Your task to perform on an android device: What's on my calendar today? Image 0: 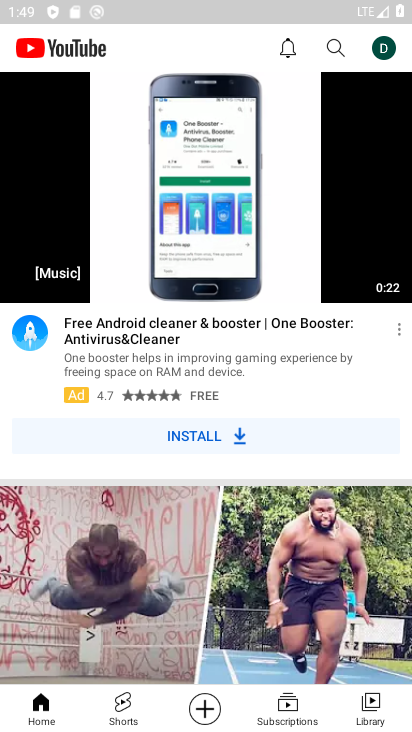
Step 0: drag from (167, 614) to (308, 168)
Your task to perform on an android device: What's on my calendar today? Image 1: 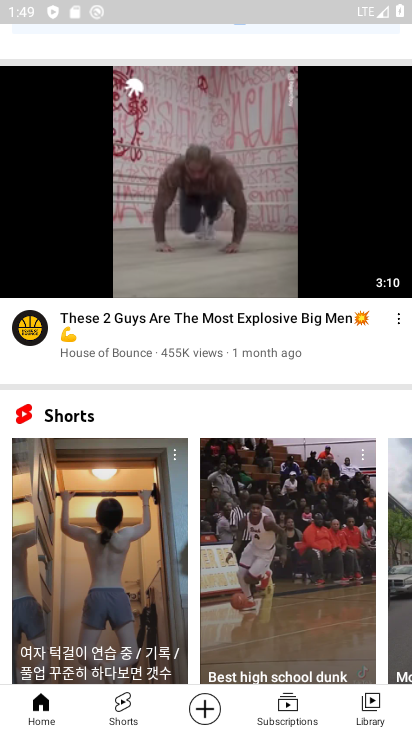
Step 1: drag from (128, 596) to (245, 194)
Your task to perform on an android device: What's on my calendar today? Image 2: 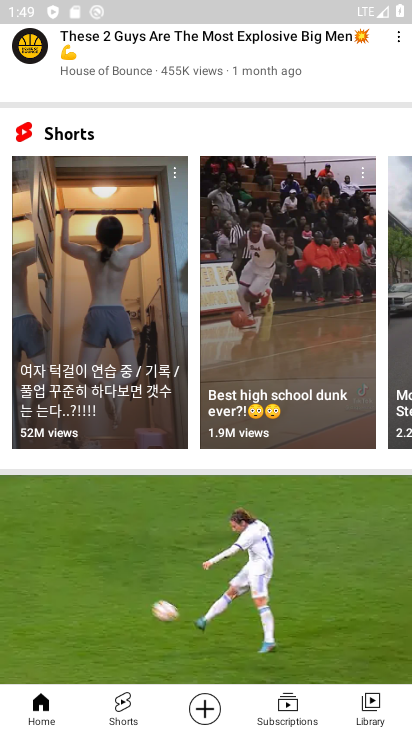
Step 2: press home button
Your task to perform on an android device: What's on my calendar today? Image 3: 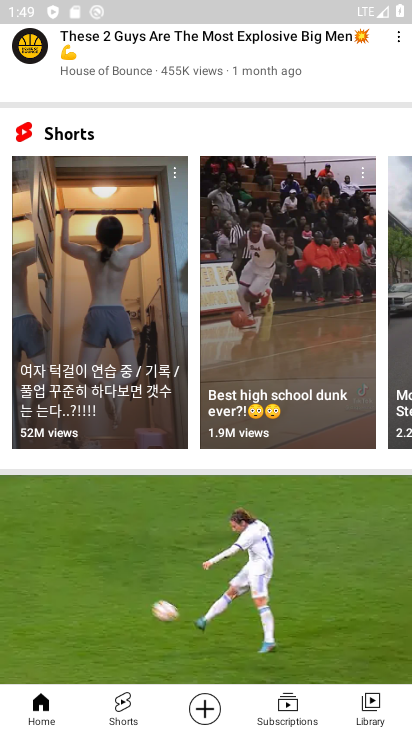
Step 3: click (340, 1)
Your task to perform on an android device: What's on my calendar today? Image 4: 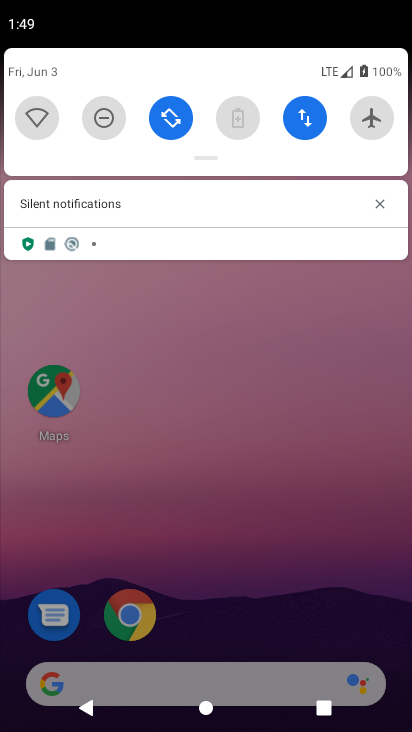
Step 4: drag from (278, 397) to (277, 7)
Your task to perform on an android device: What's on my calendar today? Image 5: 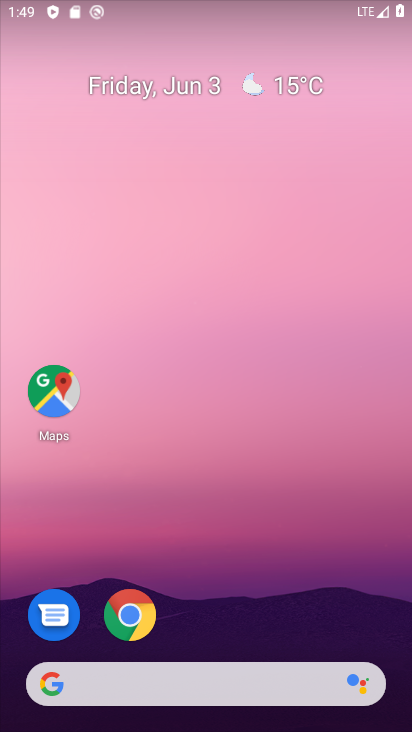
Step 5: drag from (191, 353) to (243, 54)
Your task to perform on an android device: What's on my calendar today? Image 6: 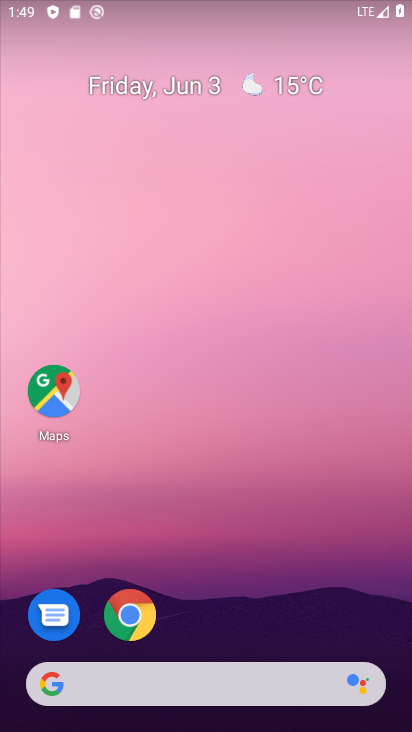
Step 6: drag from (189, 611) to (260, 76)
Your task to perform on an android device: What's on my calendar today? Image 7: 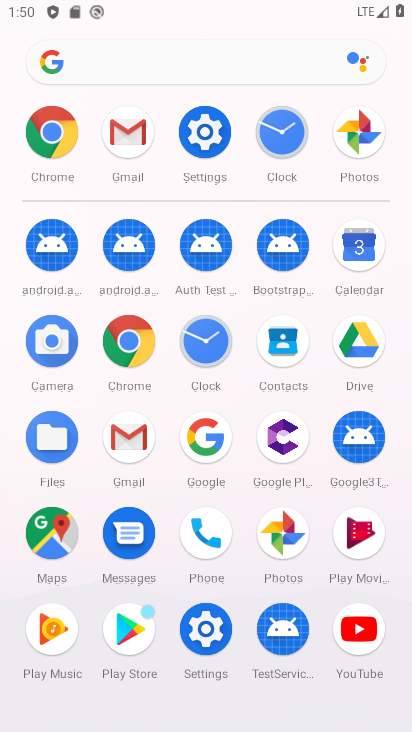
Step 7: click (363, 237)
Your task to perform on an android device: What's on my calendar today? Image 8: 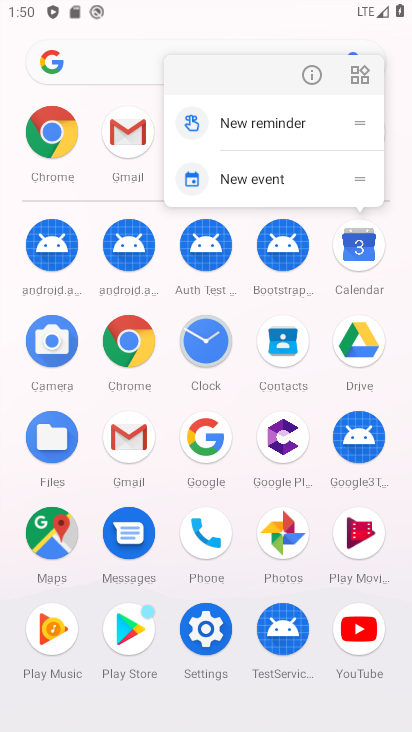
Step 8: click (319, 83)
Your task to perform on an android device: What's on my calendar today? Image 9: 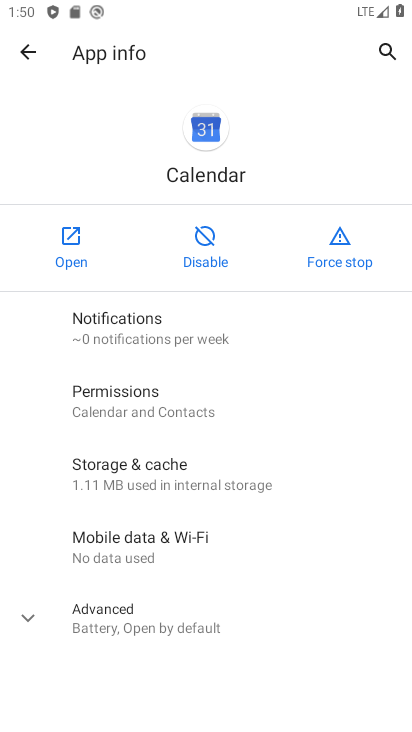
Step 9: click (67, 249)
Your task to perform on an android device: What's on my calendar today? Image 10: 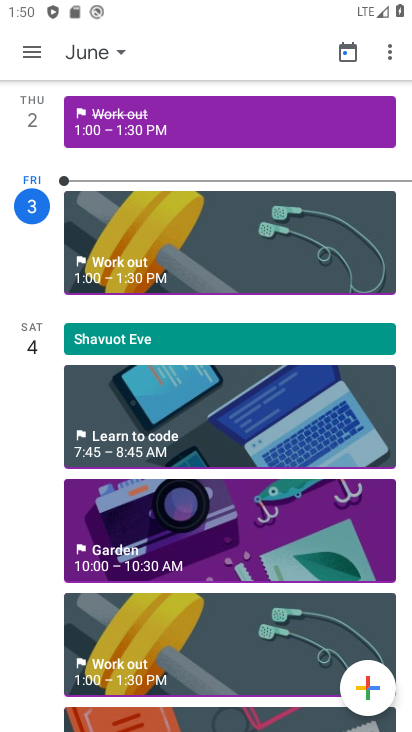
Step 10: click (114, 53)
Your task to perform on an android device: What's on my calendar today? Image 11: 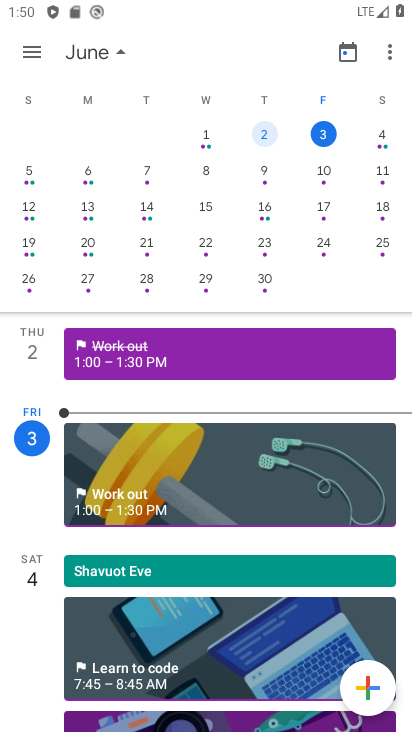
Step 11: click (316, 133)
Your task to perform on an android device: What's on my calendar today? Image 12: 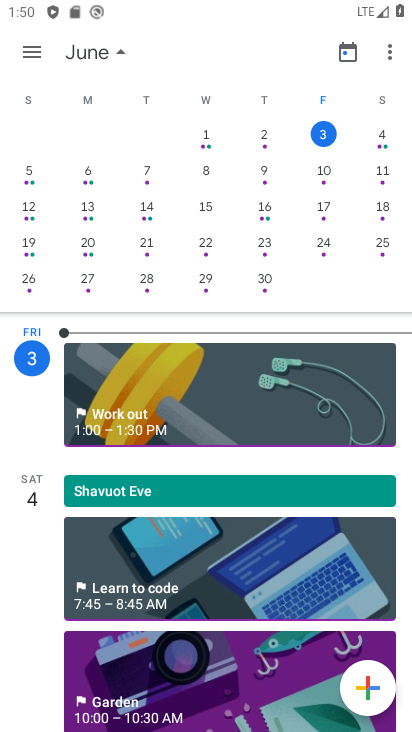
Step 12: task complete